Your task to perform on an android device: Open my contact list Image 0: 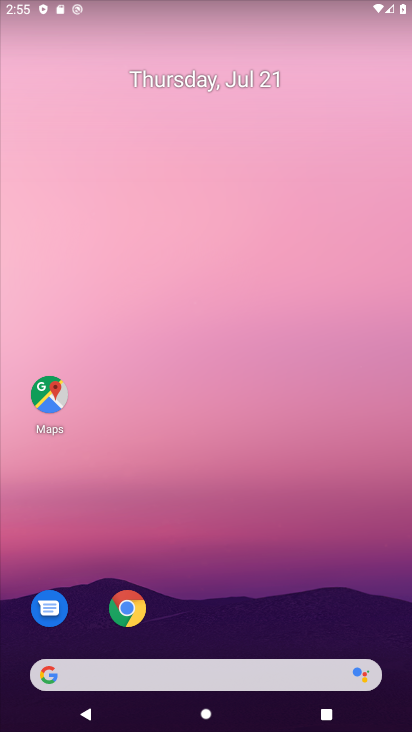
Step 0: drag from (295, 591) to (263, 67)
Your task to perform on an android device: Open my contact list Image 1: 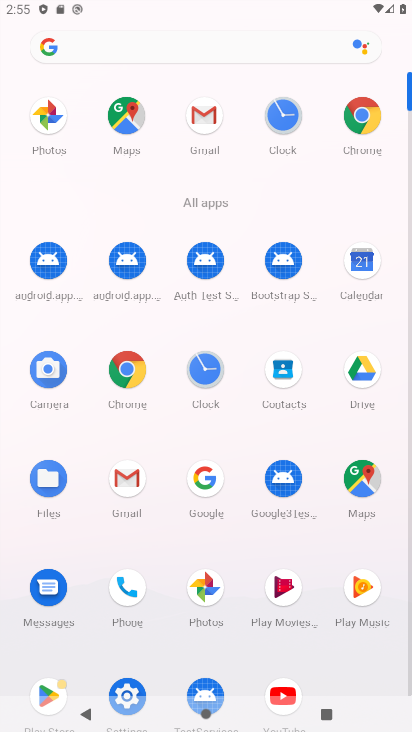
Step 1: click (285, 372)
Your task to perform on an android device: Open my contact list Image 2: 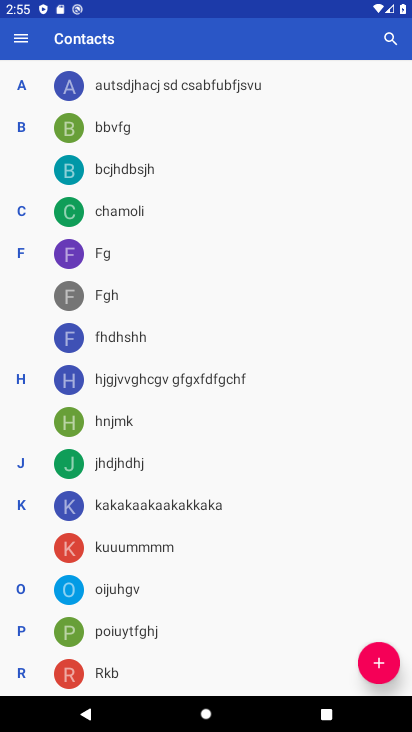
Step 2: task complete